Your task to perform on an android device: Search for pizza restaurants on Maps Image 0: 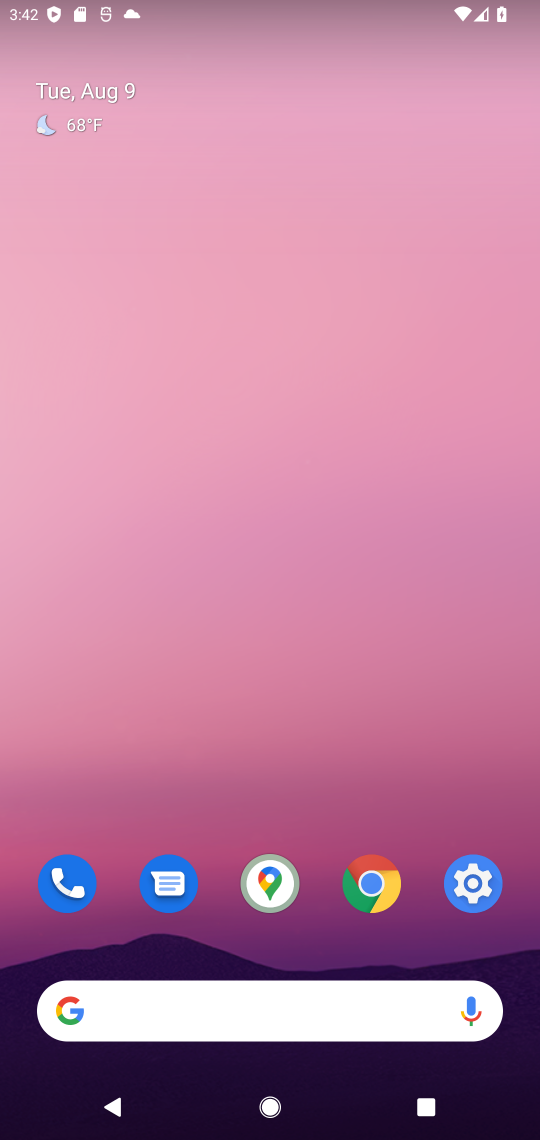
Step 0: drag from (355, 977) to (290, 350)
Your task to perform on an android device: Search for pizza restaurants on Maps Image 1: 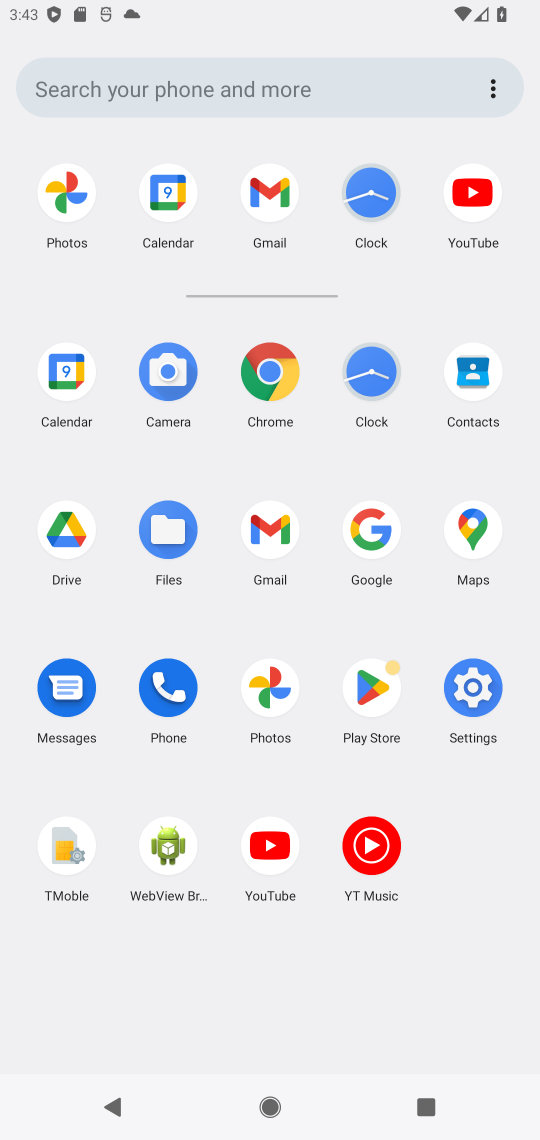
Step 1: click (463, 538)
Your task to perform on an android device: Search for pizza restaurants on Maps Image 2: 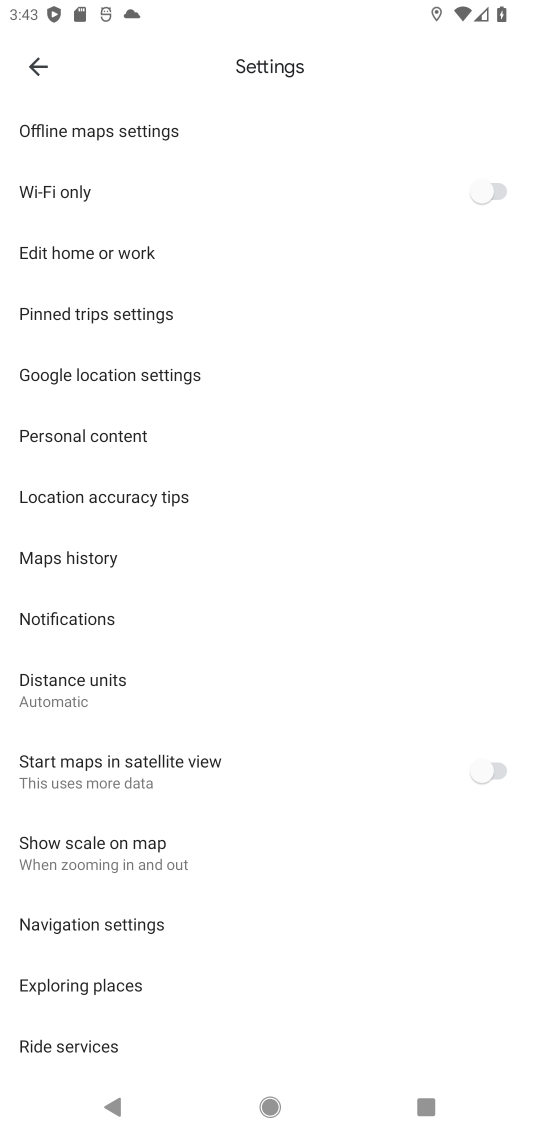
Step 2: click (55, 83)
Your task to perform on an android device: Search for pizza restaurants on Maps Image 3: 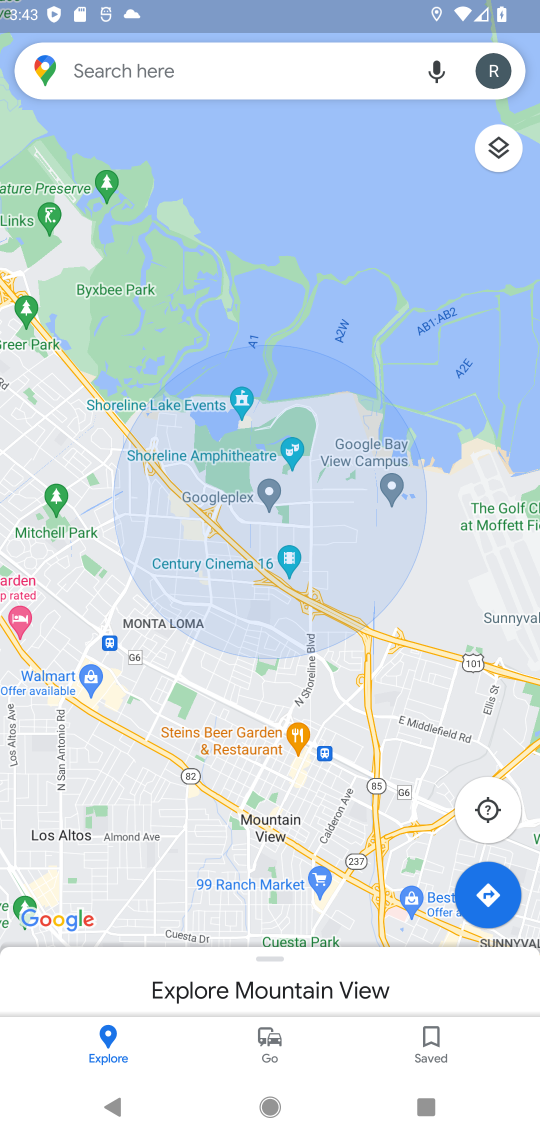
Step 3: click (135, 70)
Your task to perform on an android device: Search for pizza restaurants on Maps Image 4: 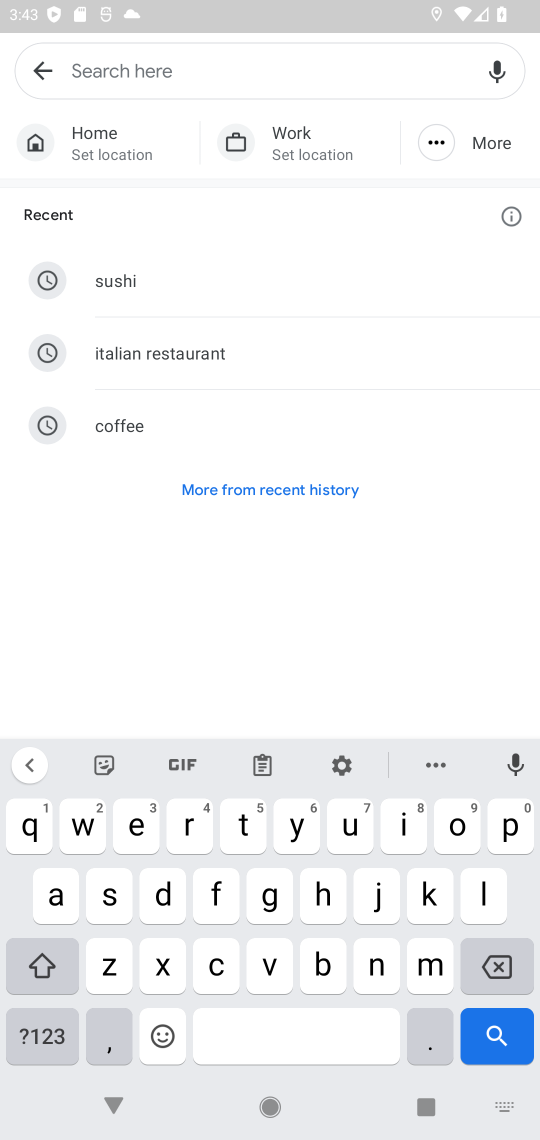
Step 4: click (508, 831)
Your task to perform on an android device: Search for pizza restaurants on Maps Image 5: 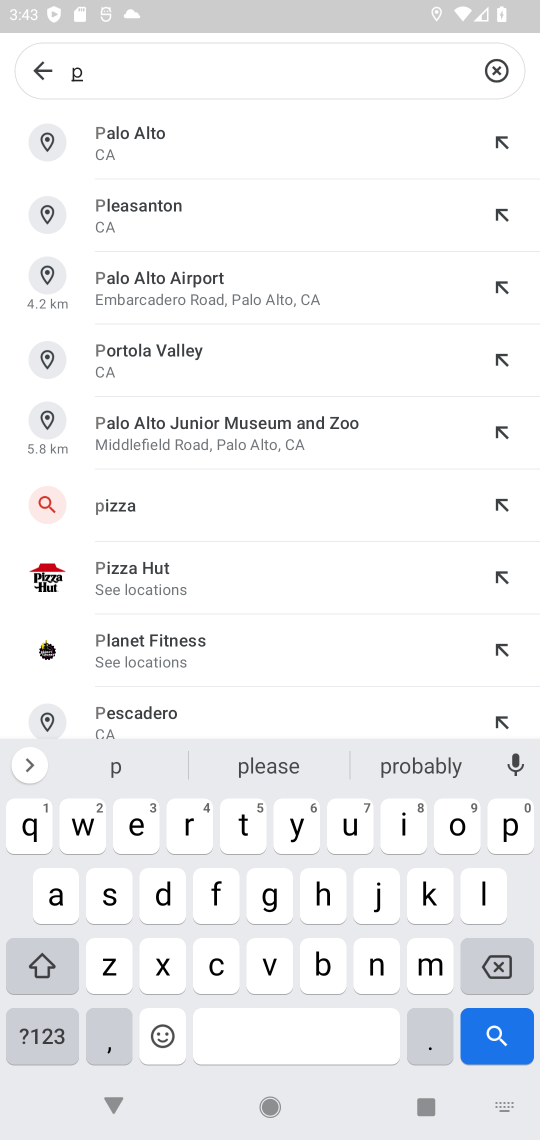
Step 5: click (390, 834)
Your task to perform on an android device: Search for pizza restaurants on Maps Image 6: 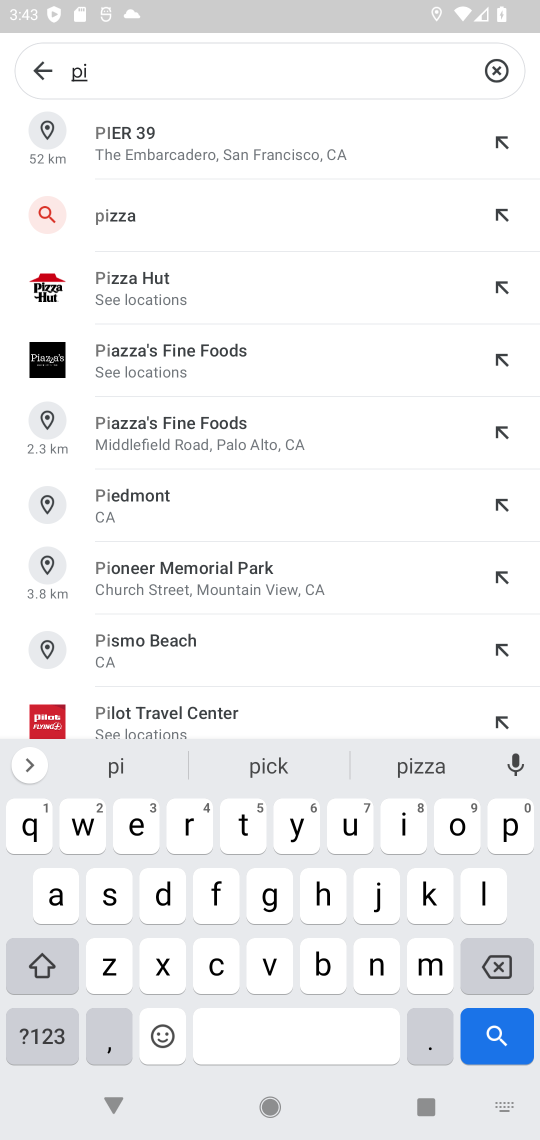
Step 6: click (133, 215)
Your task to perform on an android device: Search for pizza restaurants on Maps Image 7: 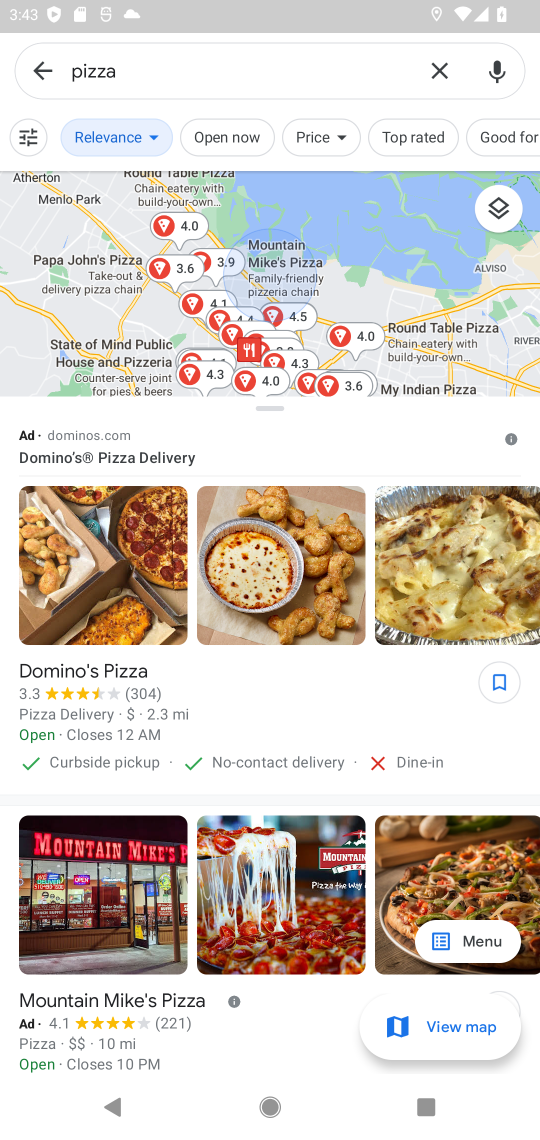
Step 7: task complete